Your task to perform on an android device: Turn off the flashlight Image 0: 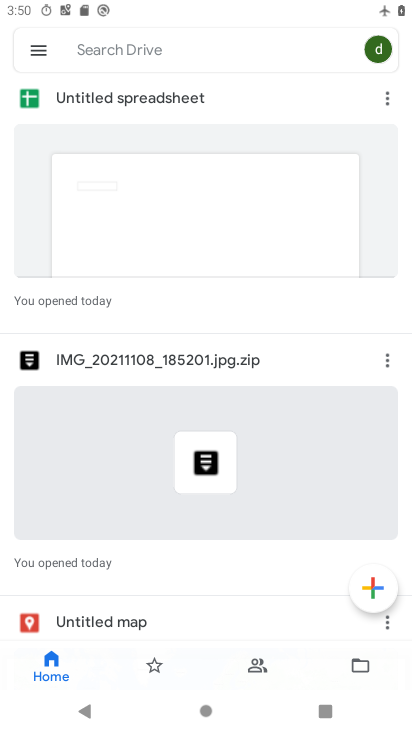
Step 0: drag from (291, 18) to (188, 450)
Your task to perform on an android device: Turn off the flashlight Image 1: 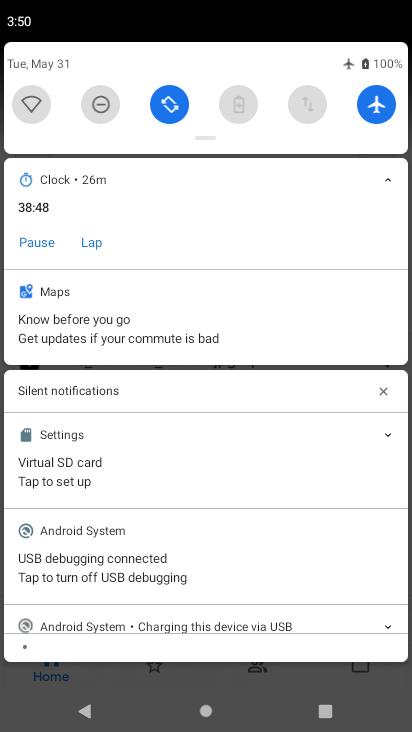
Step 1: task complete